Your task to perform on an android device: visit the assistant section in the google photos Image 0: 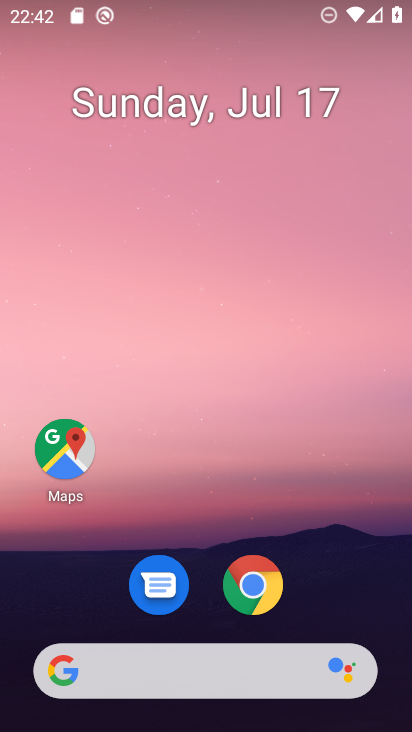
Step 0: press home button
Your task to perform on an android device: visit the assistant section in the google photos Image 1: 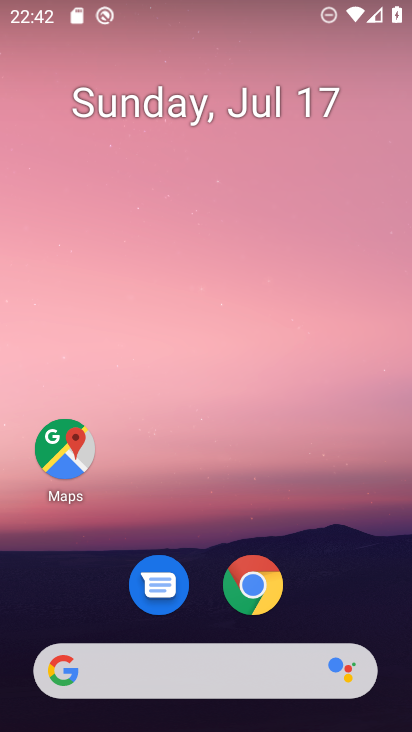
Step 1: drag from (256, 683) to (321, 268)
Your task to perform on an android device: visit the assistant section in the google photos Image 2: 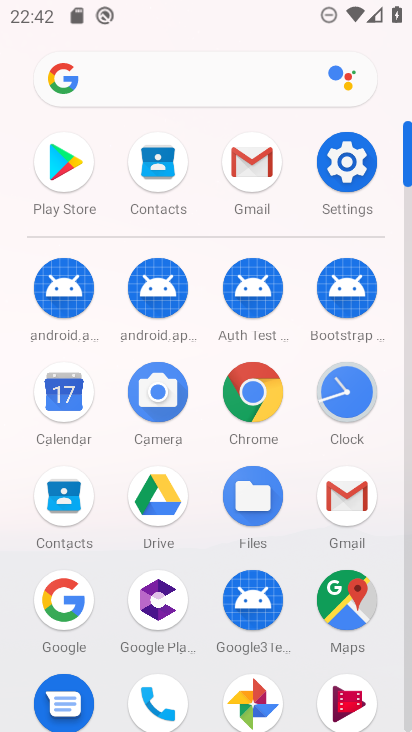
Step 2: click (242, 699)
Your task to perform on an android device: visit the assistant section in the google photos Image 3: 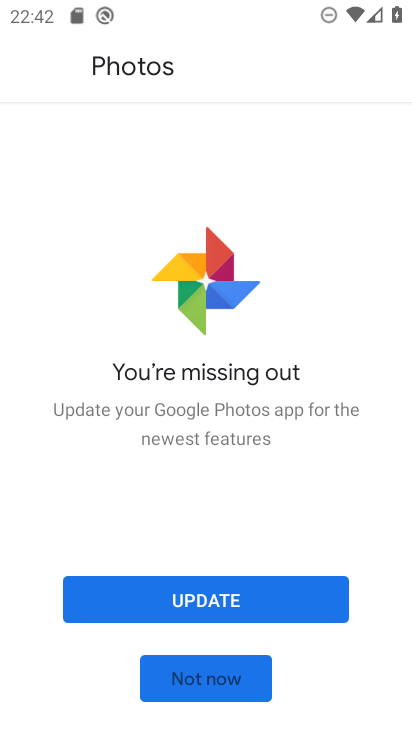
Step 3: click (219, 684)
Your task to perform on an android device: visit the assistant section in the google photos Image 4: 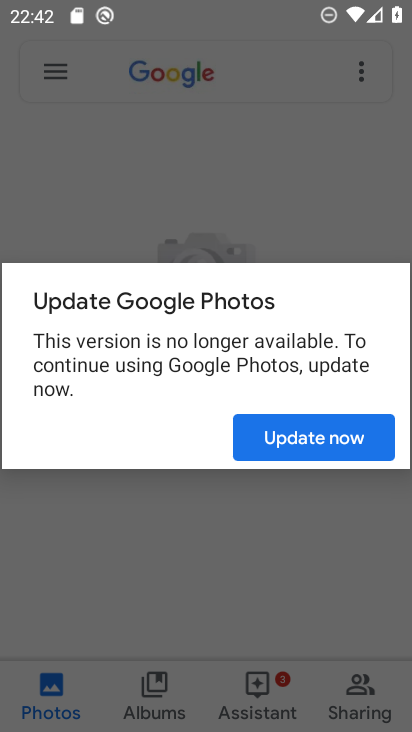
Step 4: click (335, 423)
Your task to perform on an android device: visit the assistant section in the google photos Image 5: 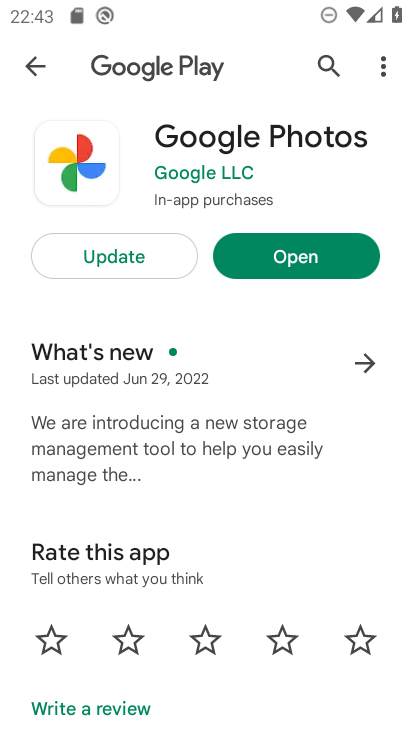
Step 5: click (262, 262)
Your task to perform on an android device: visit the assistant section in the google photos Image 6: 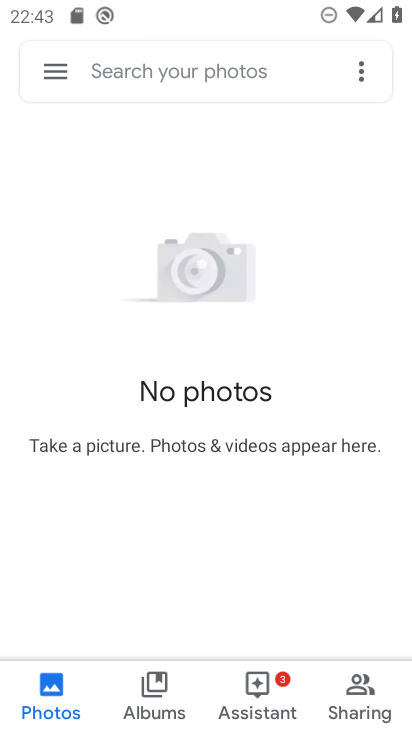
Step 6: click (257, 700)
Your task to perform on an android device: visit the assistant section in the google photos Image 7: 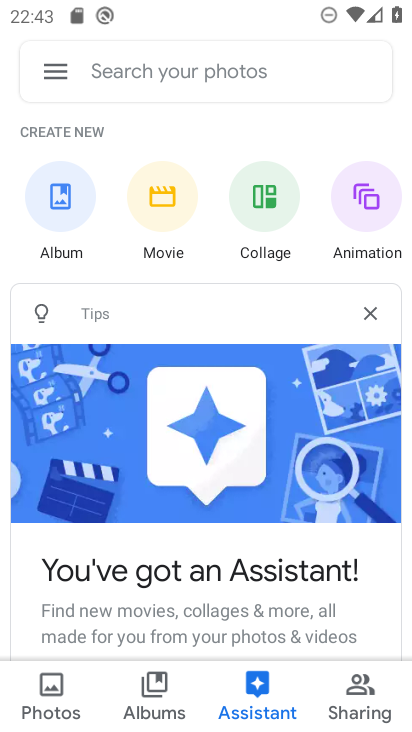
Step 7: task complete